Your task to perform on an android device: Go to Reddit.com Image 0: 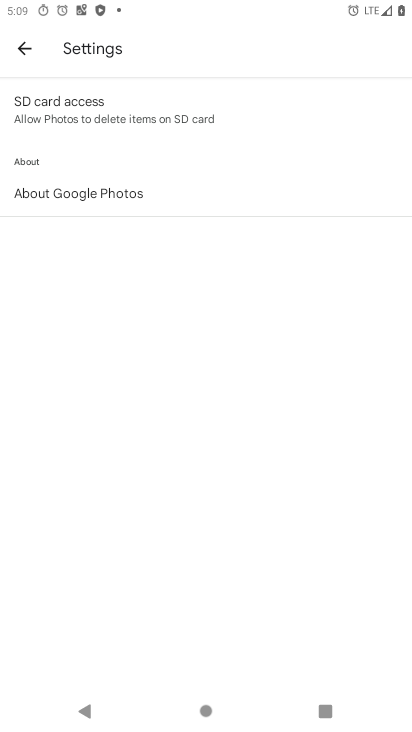
Step 0: press home button
Your task to perform on an android device: Go to Reddit.com Image 1: 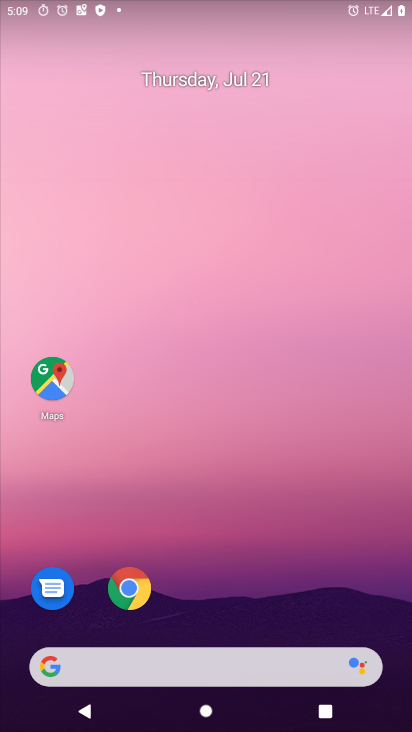
Step 1: click (134, 592)
Your task to perform on an android device: Go to Reddit.com Image 2: 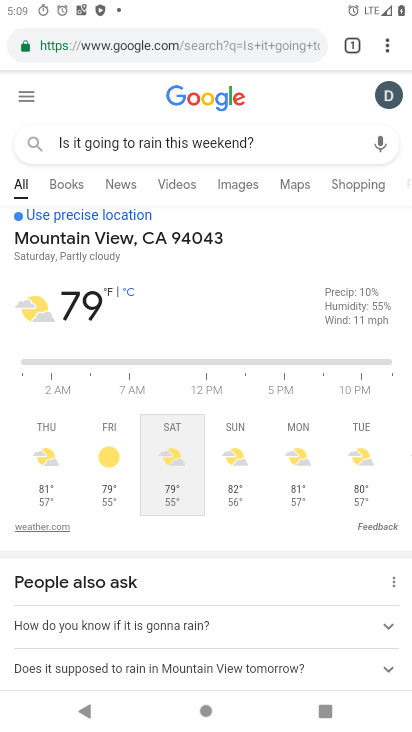
Step 2: click (188, 33)
Your task to perform on an android device: Go to Reddit.com Image 3: 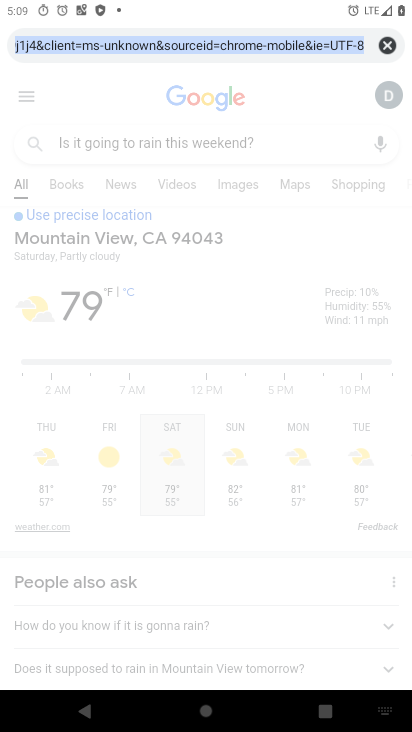
Step 3: click (393, 40)
Your task to perform on an android device: Go to Reddit.com Image 4: 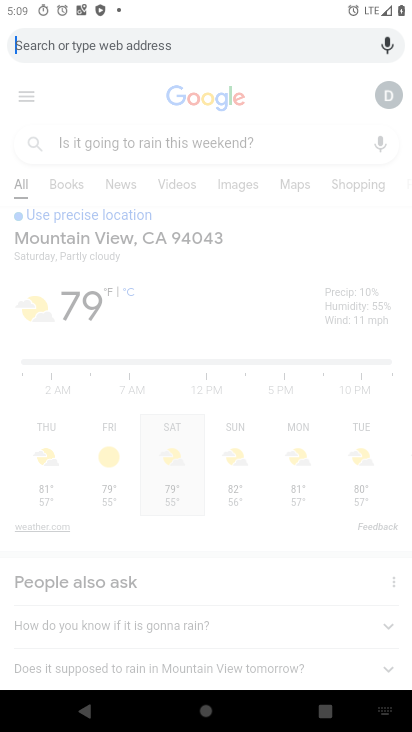
Step 4: type "Go to Reddit.com"
Your task to perform on an android device: Go to Reddit.com Image 5: 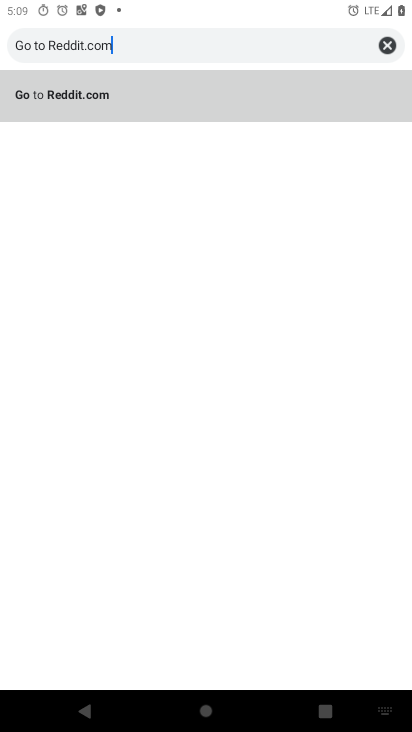
Step 5: click (73, 93)
Your task to perform on an android device: Go to Reddit.com Image 6: 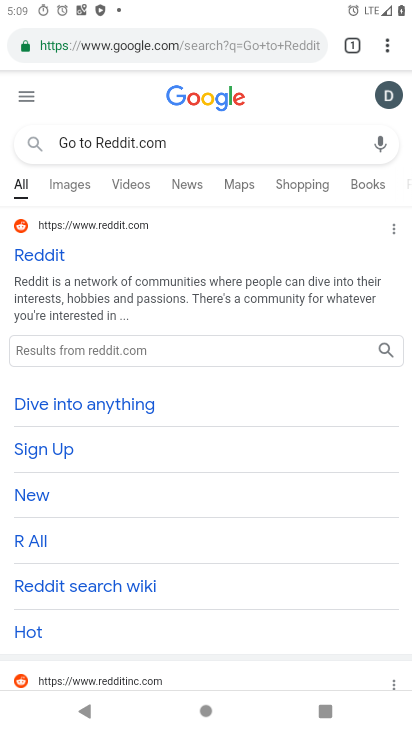
Step 6: click (27, 258)
Your task to perform on an android device: Go to Reddit.com Image 7: 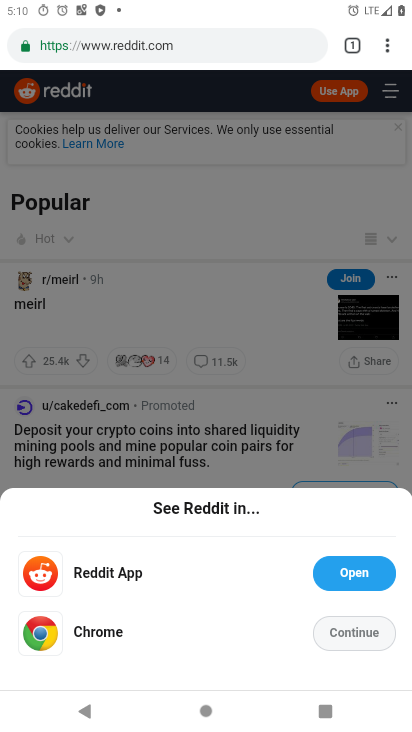
Step 7: task complete